Your task to perform on an android device: install app "Move to iOS" Image 0: 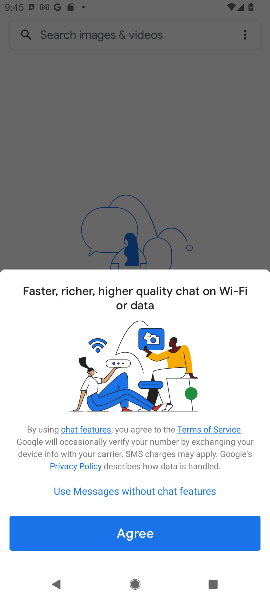
Step 0: press home button
Your task to perform on an android device: install app "Move to iOS" Image 1: 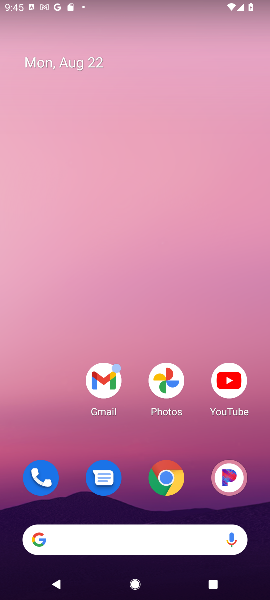
Step 1: drag from (210, 512) to (185, 42)
Your task to perform on an android device: install app "Move to iOS" Image 2: 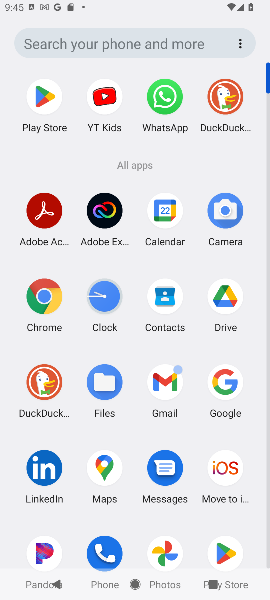
Step 2: click (49, 93)
Your task to perform on an android device: install app "Move to iOS" Image 3: 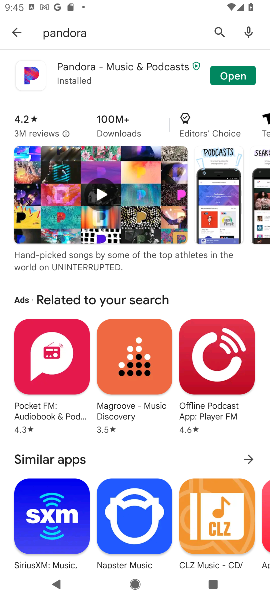
Step 3: click (208, 25)
Your task to perform on an android device: install app "Move to iOS" Image 4: 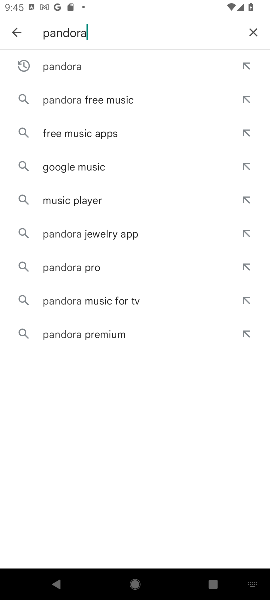
Step 4: click (246, 33)
Your task to perform on an android device: install app "Move to iOS" Image 5: 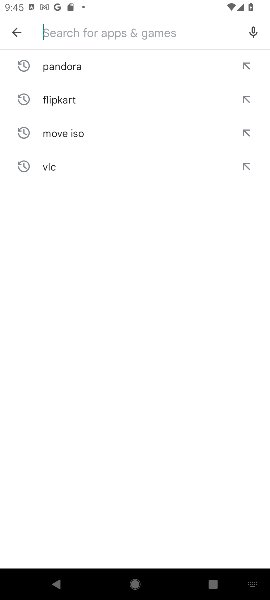
Step 5: type "playwell"
Your task to perform on an android device: install app "Move to iOS" Image 6: 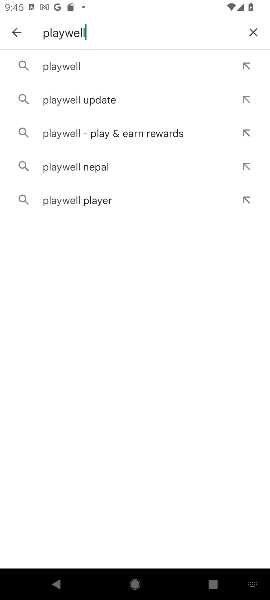
Step 6: click (117, 75)
Your task to perform on an android device: install app "Move to iOS" Image 7: 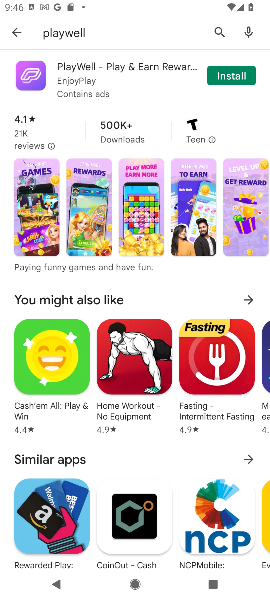
Step 7: click (219, 76)
Your task to perform on an android device: install app "Move to iOS" Image 8: 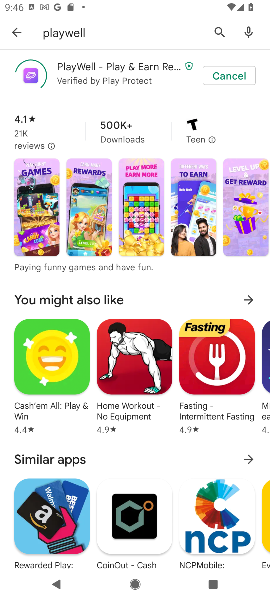
Step 8: task complete